Your task to perform on an android device: Open a new window in Chrome Image 0: 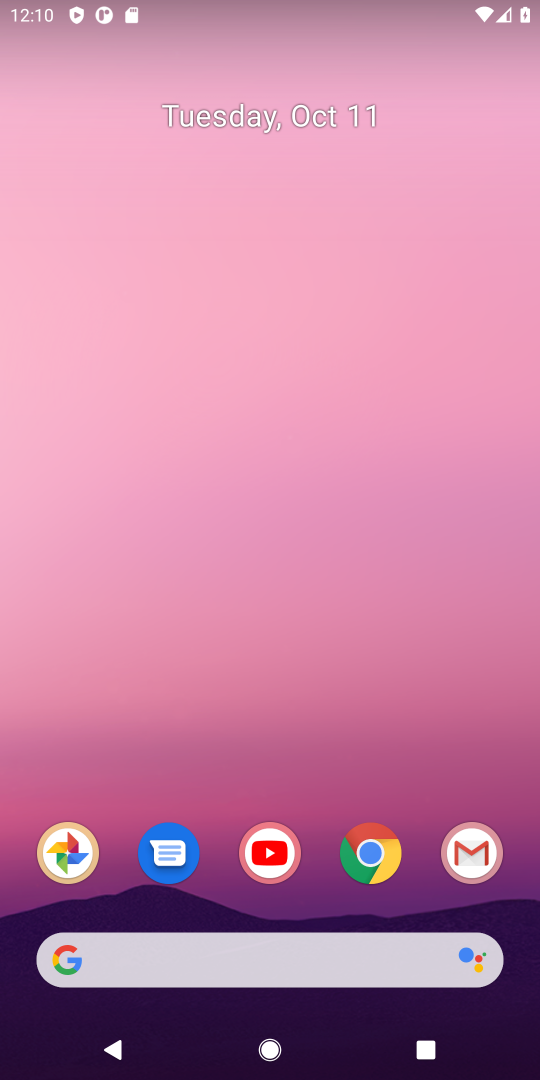
Step 0: drag from (330, 589) to (327, 90)
Your task to perform on an android device: Open a new window in Chrome Image 1: 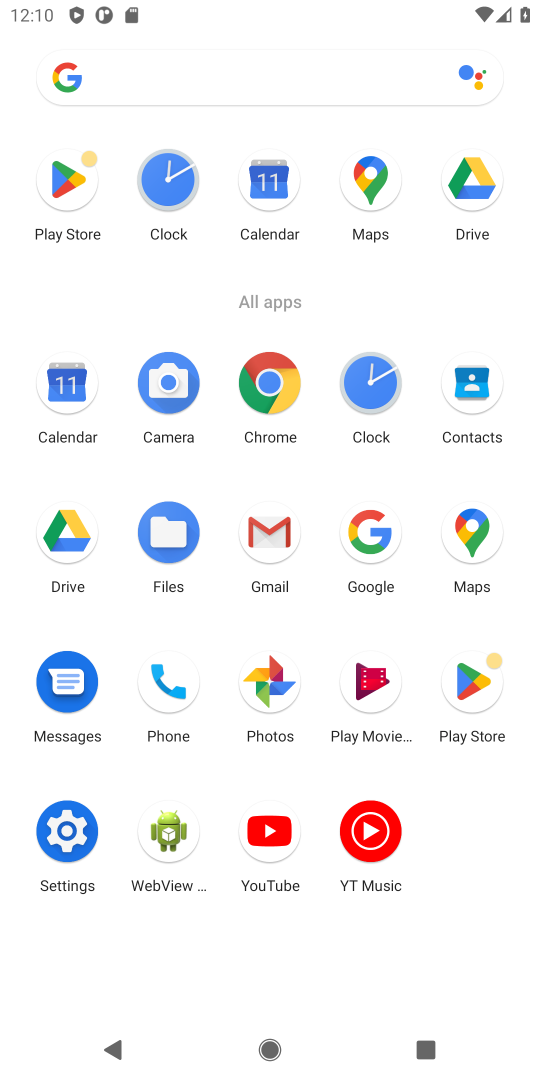
Step 1: click (274, 386)
Your task to perform on an android device: Open a new window in Chrome Image 2: 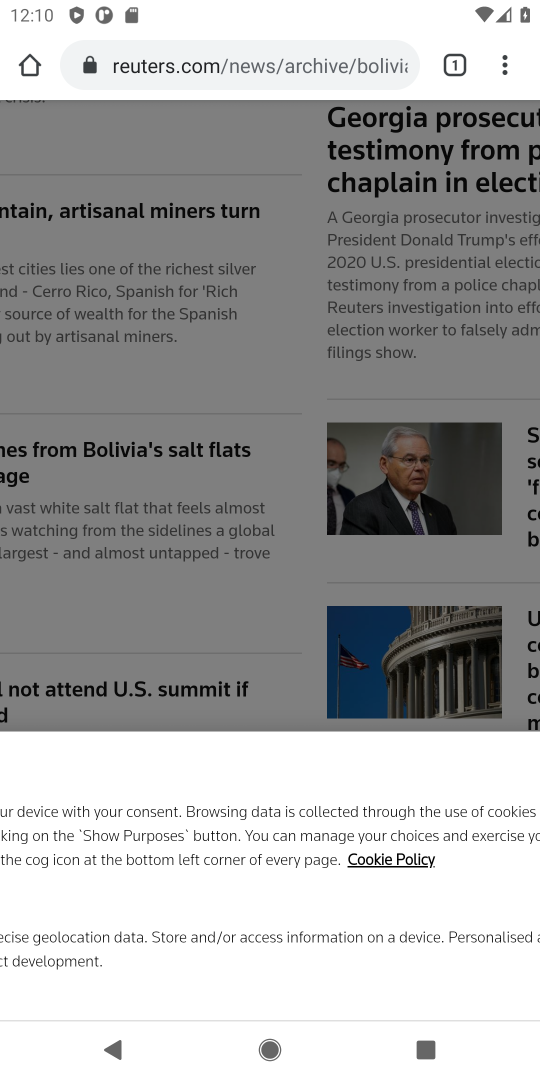
Step 2: click (508, 68)
Your task to perform on an android device: Open a new window in Chrome Image 3: 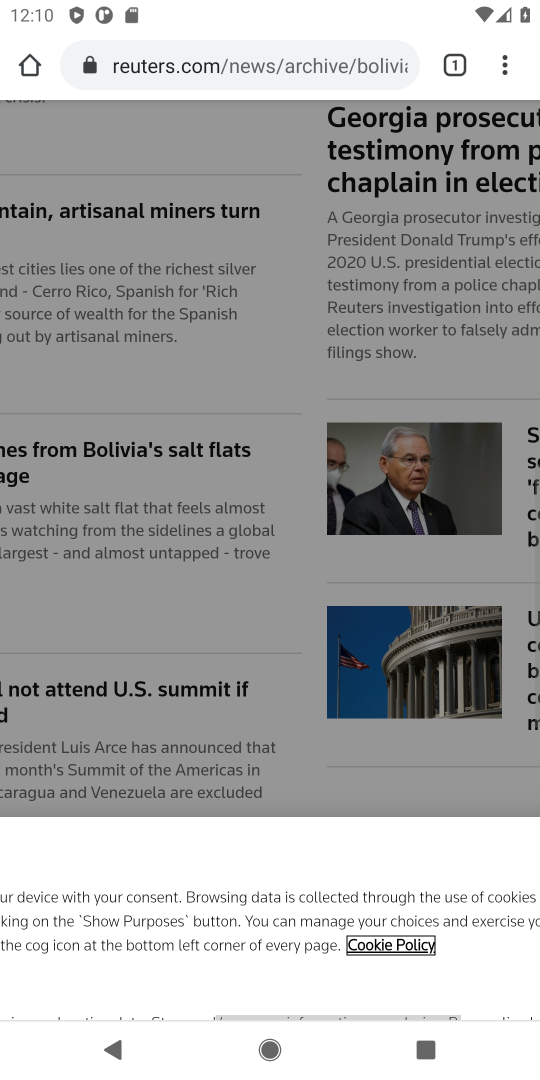
Step 3: click (459, 61)
Your task to perform on an android device: Open a new window in Chrome Image 4: 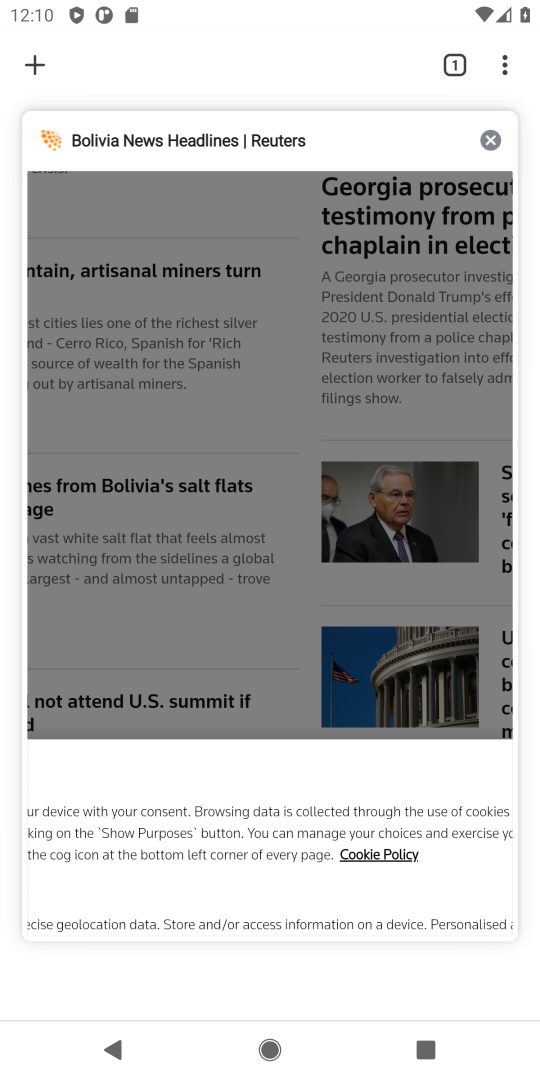
Step 4: click (490, 143)
Your task to perform on an android device: Open a new window in Chrome Image 5: 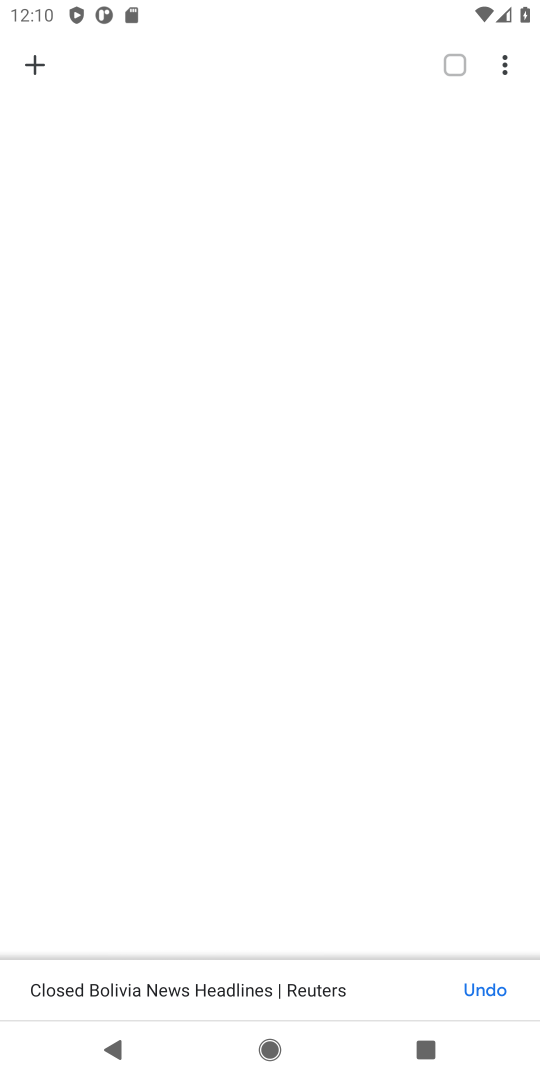
Step 5: click (25, 55)
Your task to perform on an android device: Open a new window in Chrome Image 6: 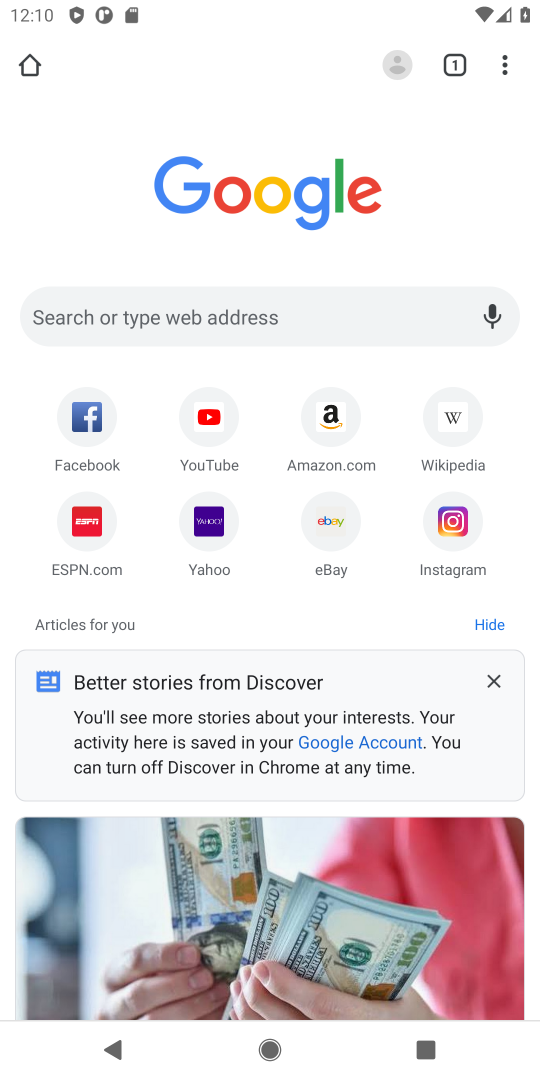
Step 6: click (492, 683)
Your task to perform on an android device: Open a new window in Chrome Image 7: 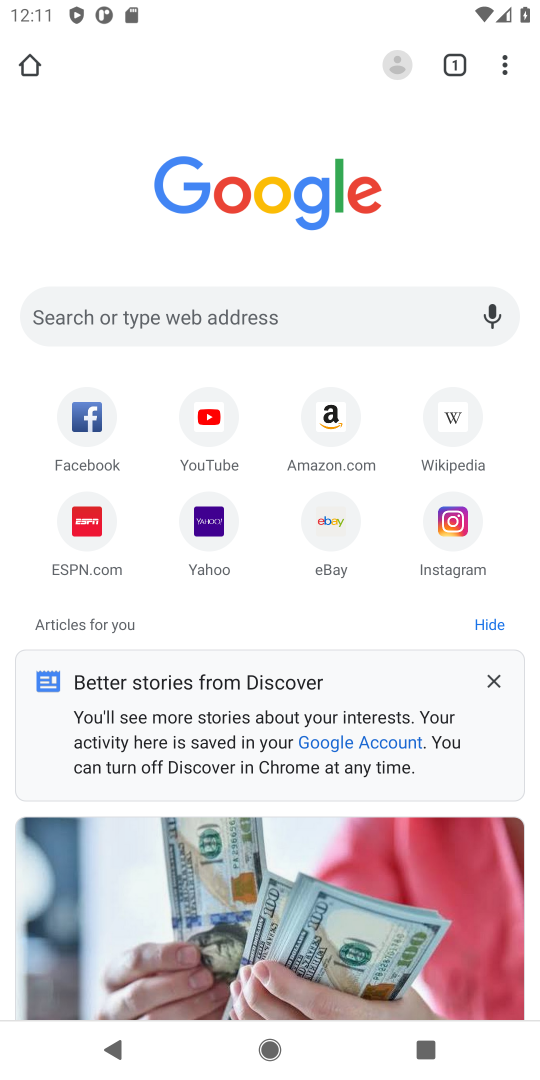
Step 7: click (319, 423)
Your task to perform on an android device: Open a new window in Chrome Image 8: 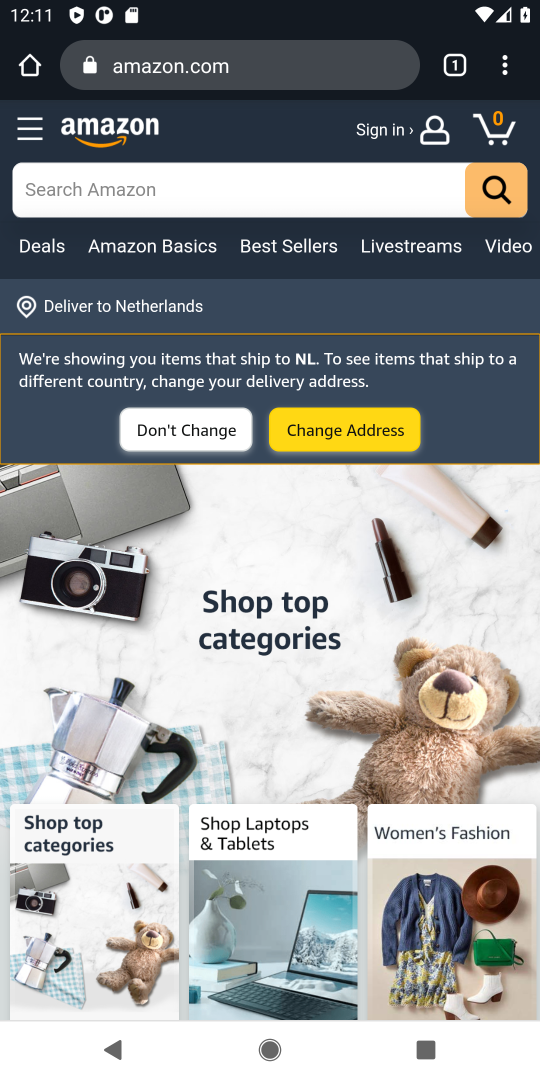
Step 8: task complete